Your task to perform on an android device: Show me productivity apps on the Play Store Image 0: 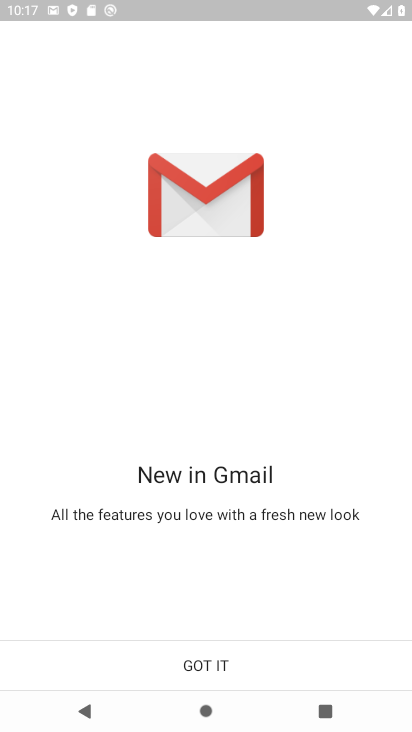
Step 0: press home button
Your task to perform on an android device: Show me productivity apps on the Play Store Image 1: 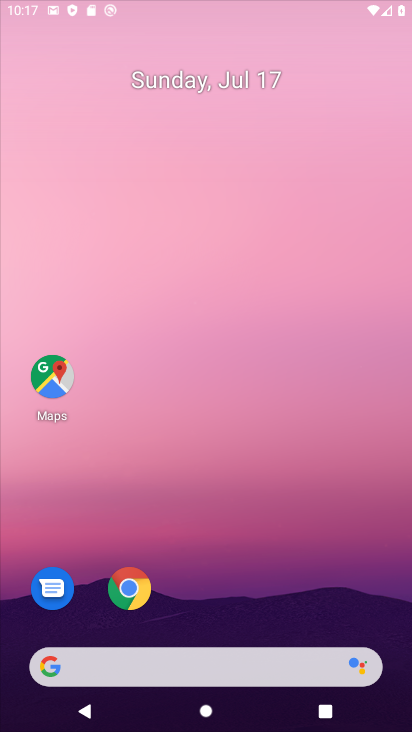
Step 1: drag from (206, 725) to (292, 75)
Your task to perform on an android device: Show me productivity apps on the Play Store Image 2: 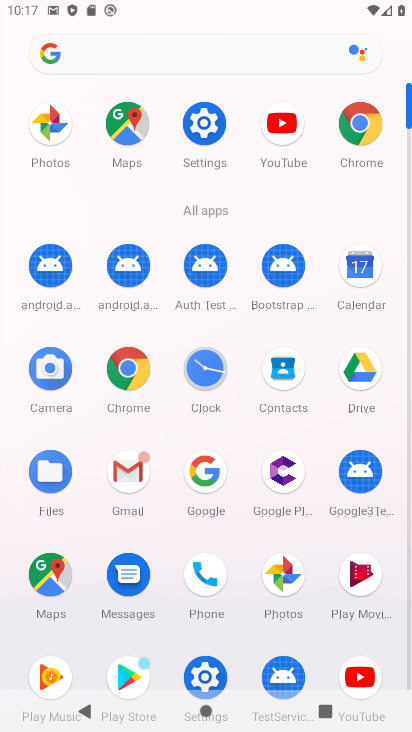
Step 2: click (123, 684)
Your task to perform on an android device: Show me productivity apps on the Play Store Image 3: 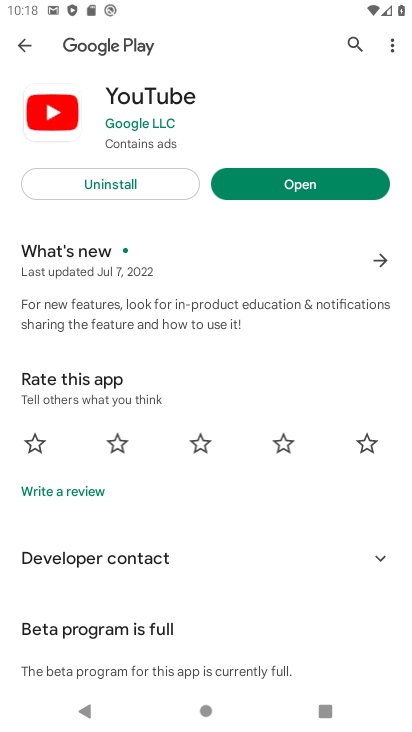
Step 3: click (349, 48)
Your task to perform on an android device: Show me productivity apps on the Play Store Image 4: 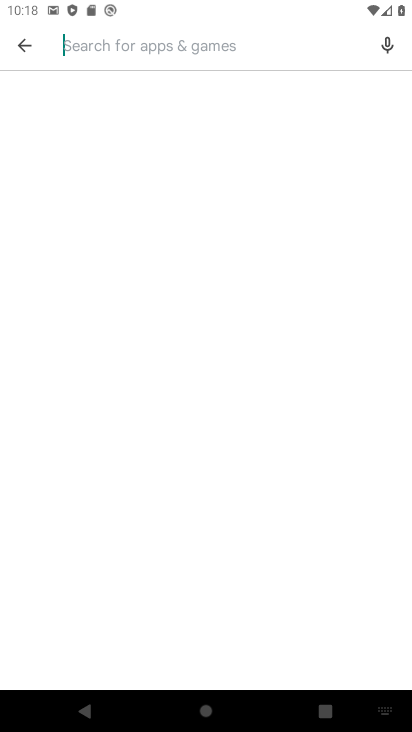
Step 4: type "productivity apps"
Your task to perform on an android device: Show me productivity apps on the Play Store Image 5: 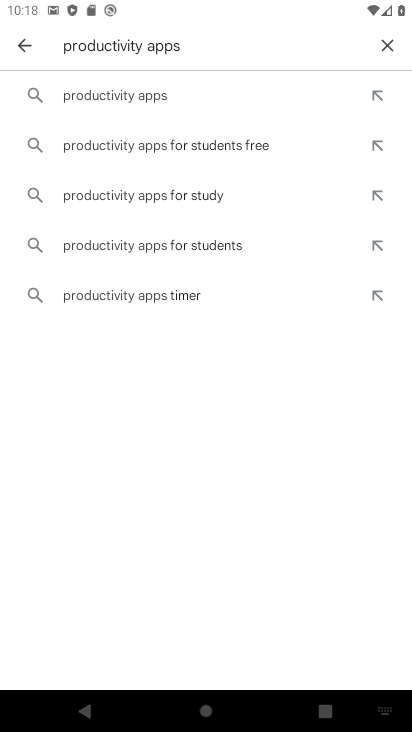
Step 5: click (79, 92)
Your task to perform on an android device: Show me productivity apps on the Play Store Image 6: 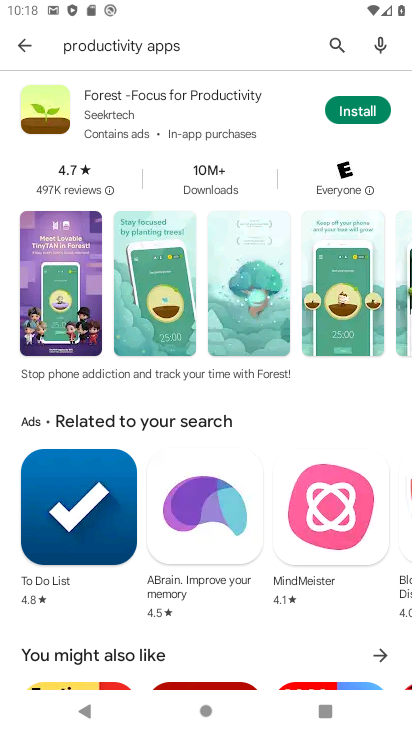
Step 6: task complete